Your task to perform on an android device: Show me popular games on the Play Store Image 0: 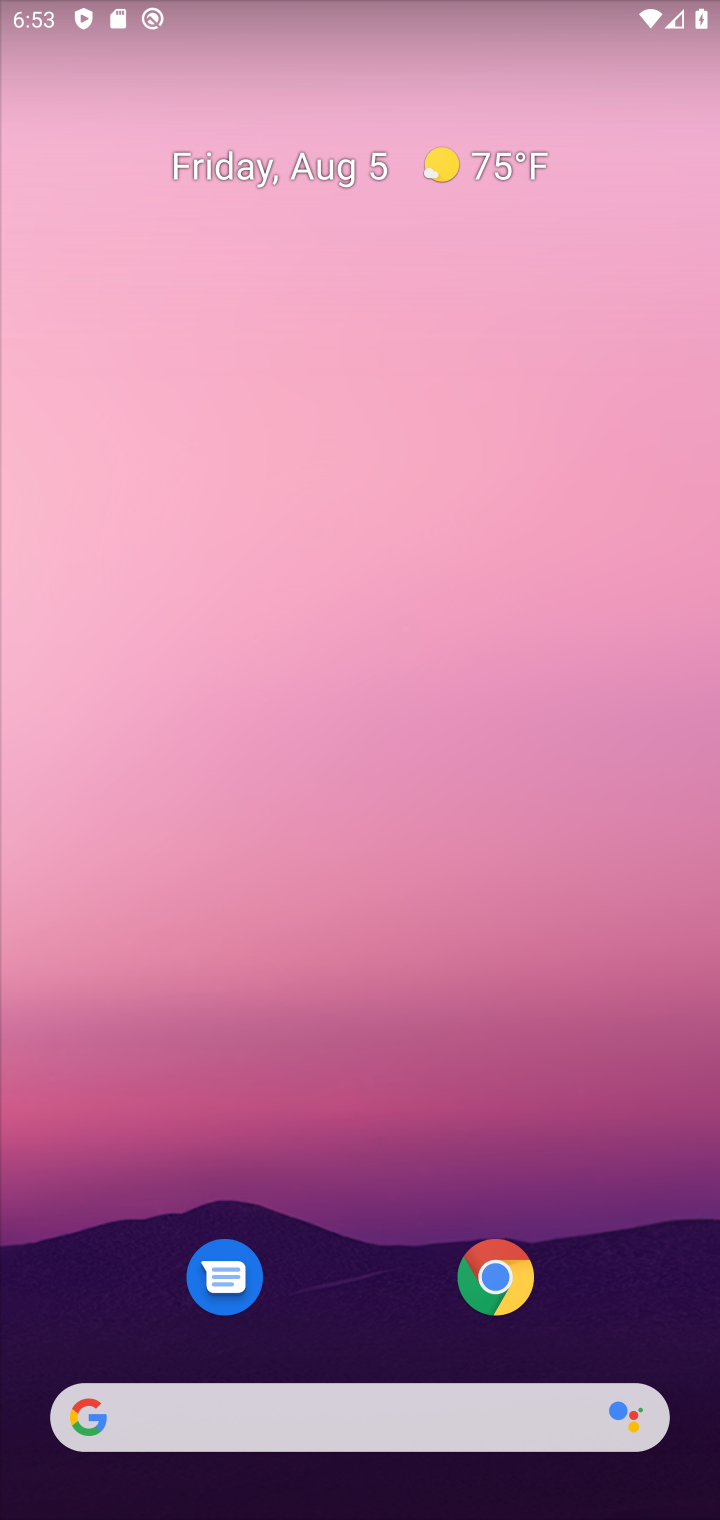
Step 0: drag from (385, 1201) to (340, 0)
Your task to perform on an android device: Show me popular games on the Play Store Image 1: 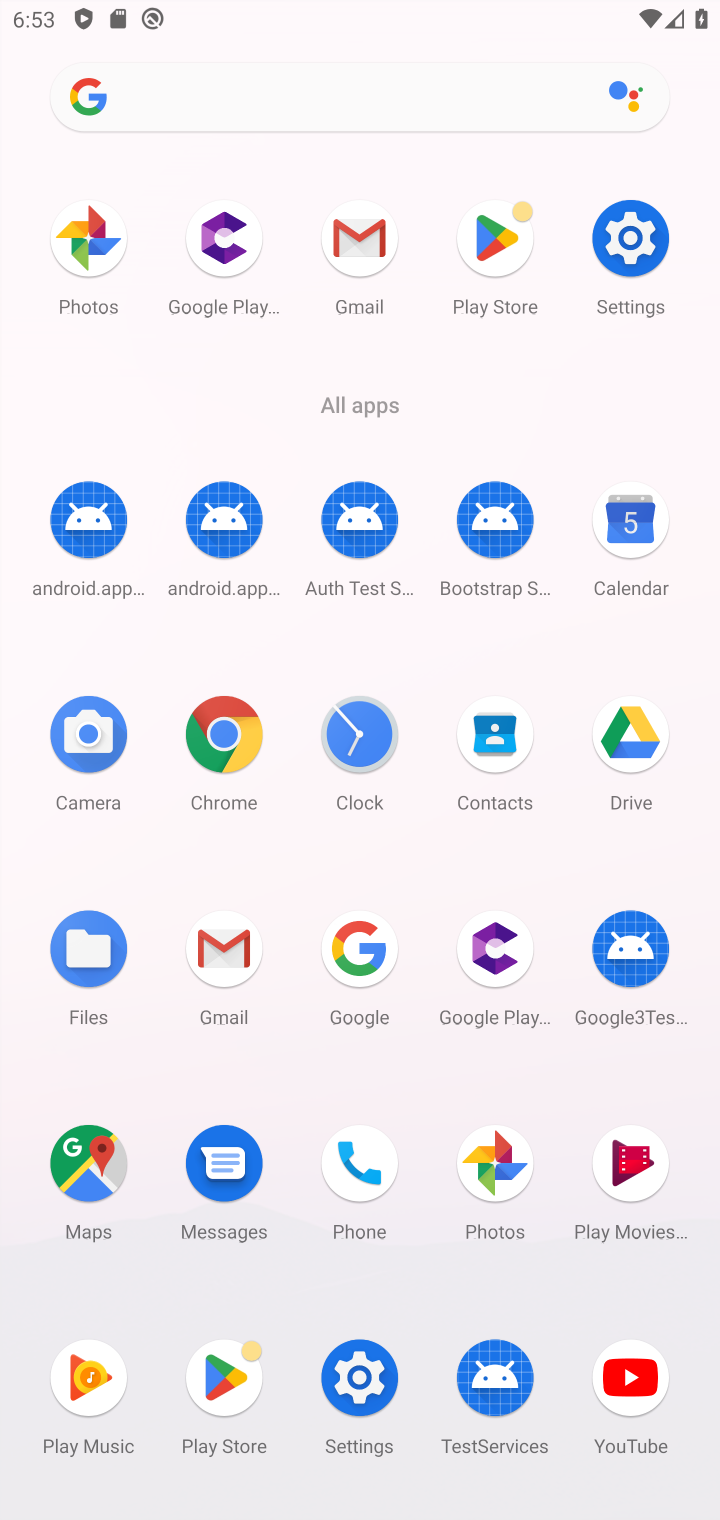
Step 1: click (224, 1384)
Your task to perform on an android device: Show me popular games on the Play Store Image 2: 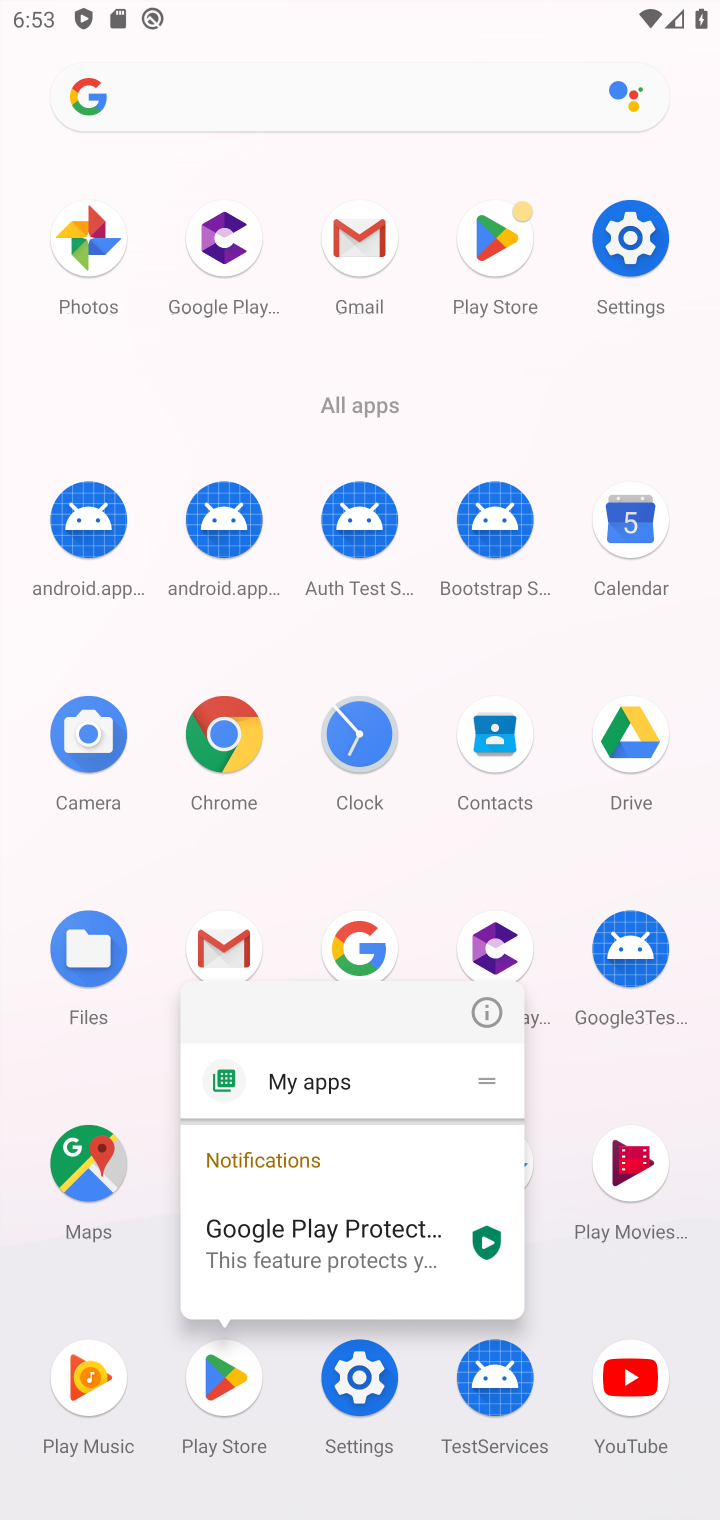
Step 2: click (224, 1384)
Your task to perform on an android device: Show me popular games on the Play Store Image 3: 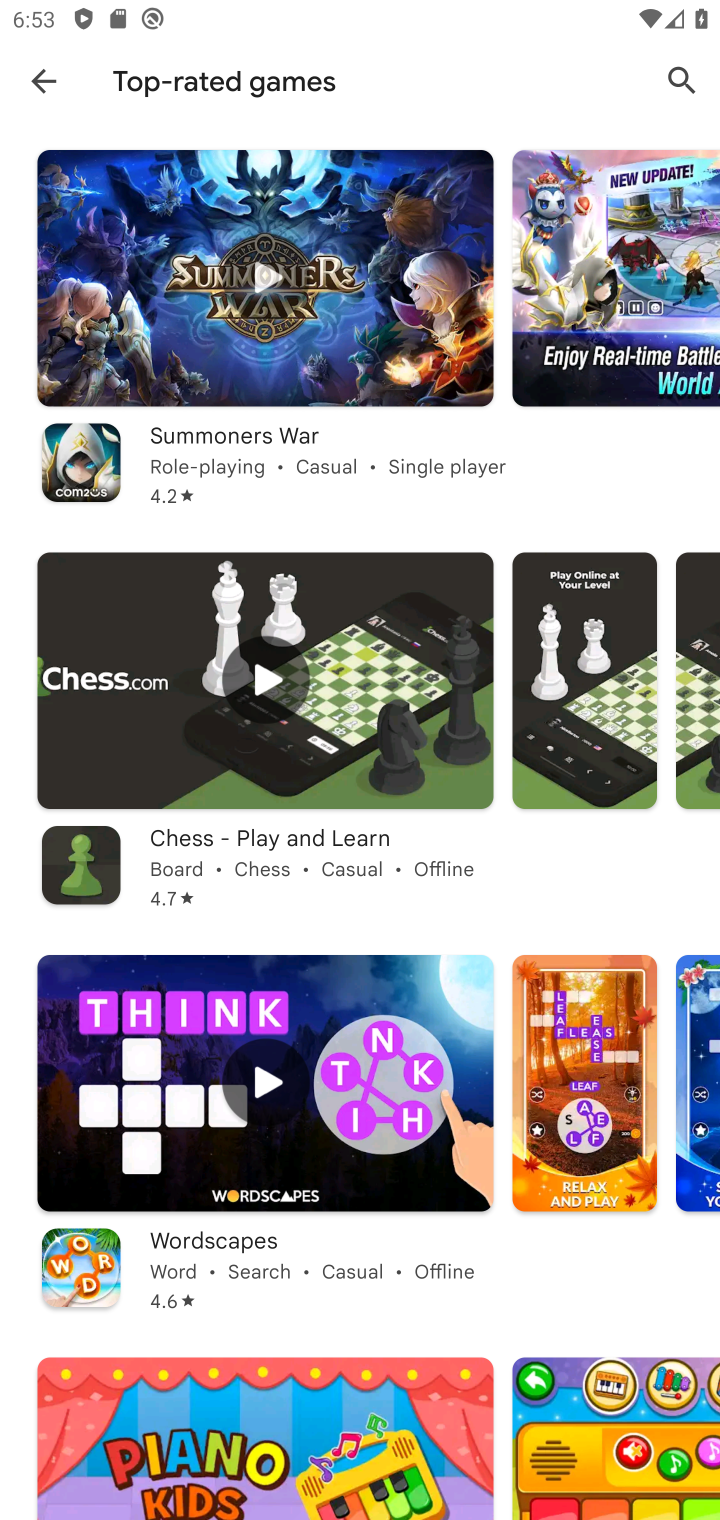
Step 3: task complete